Your task to perform on an android device: Open calendar and show me the fourth week of next month Image 0: 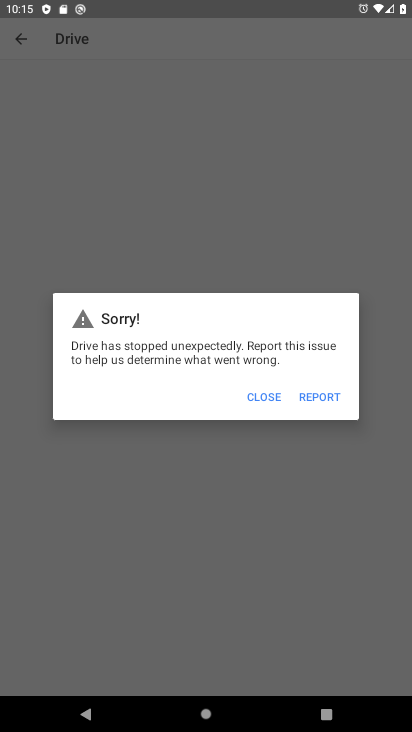
Step 0: press home button
Your task to perform on an android device: Open calendar and show me the fourth week of next month Image 1: 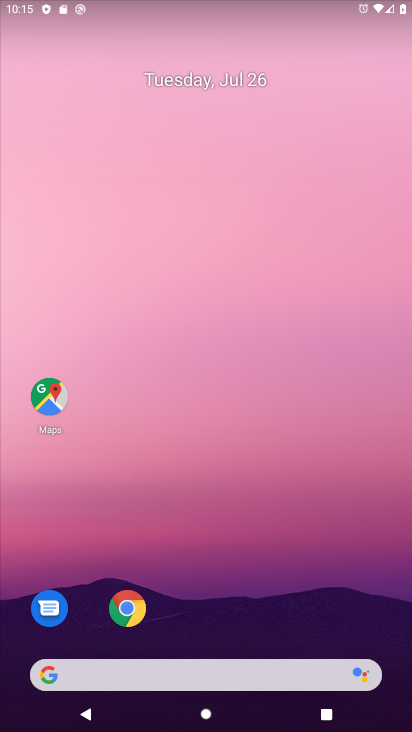
Step 1: drag from (224, 720) to (236, 100)
Your task to perform on an android device: Open calendar and show me the fourth week of next month Image 2: 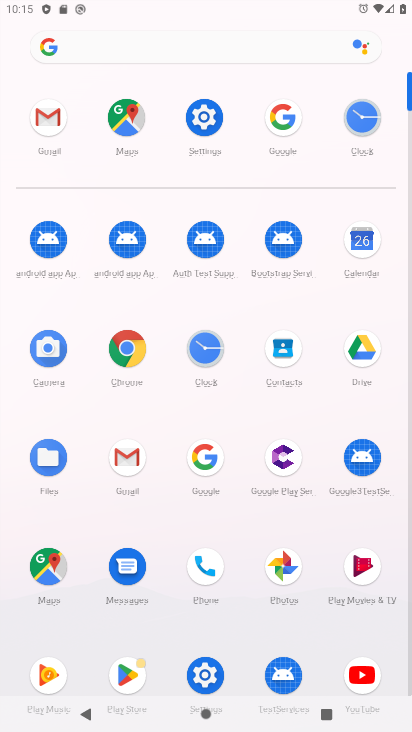
Step 2: click (364, 246)
Your task to perform on an android device: Open calendar and show me the fourth week of next month Image 3: 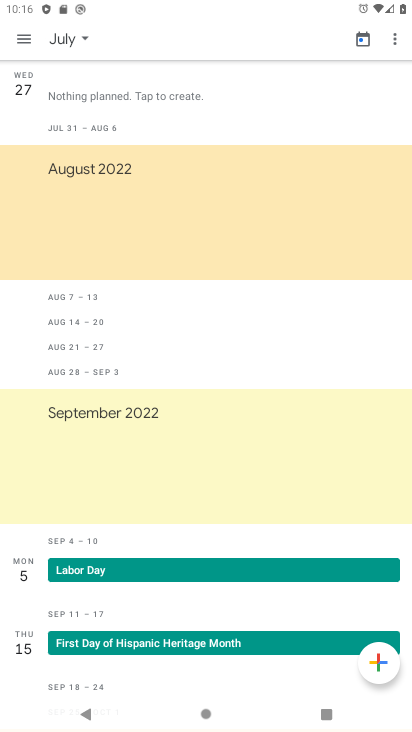
Step 3: click (85, 37)
Your task to perform on an android device: Open calendar and show me the fourth week of next month Image 4: 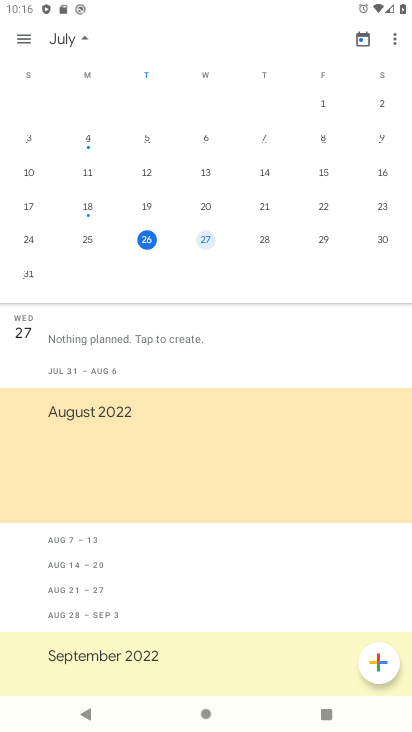
Step 4: drag from (304, 188) to (14, 185)
Your task to perform on an android device: Open calendar and show me the fourth week of next month Image 5: 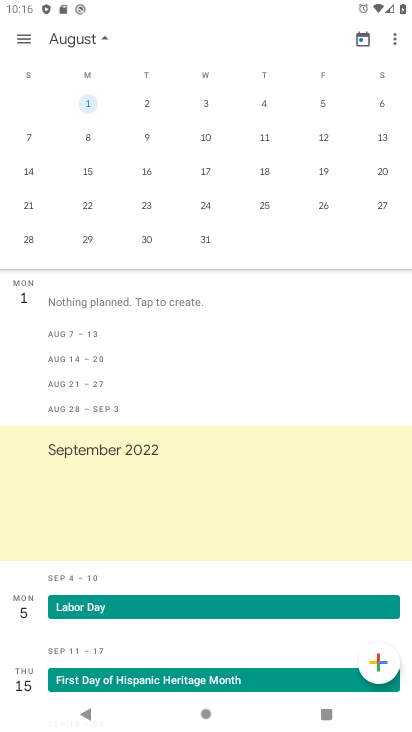
Step 5: click (84, 201)
Your task to perform on an android device: Open calendar and show me the fourth week of next month Image 6: 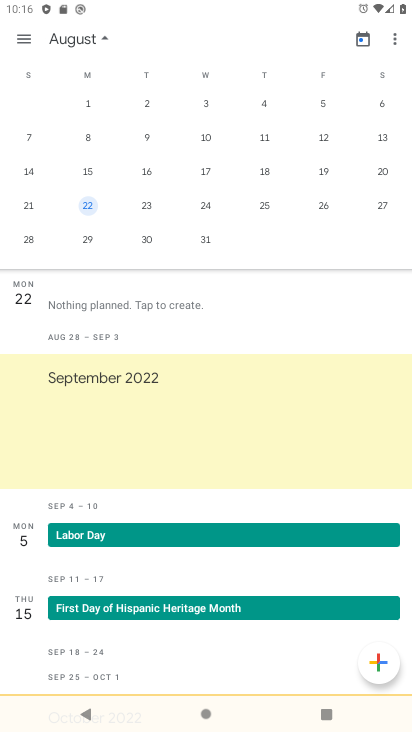
Step 6: click (25, 37)
Your task to perform on an android device: Open calendar and show me the fourth week of next month Image 7: 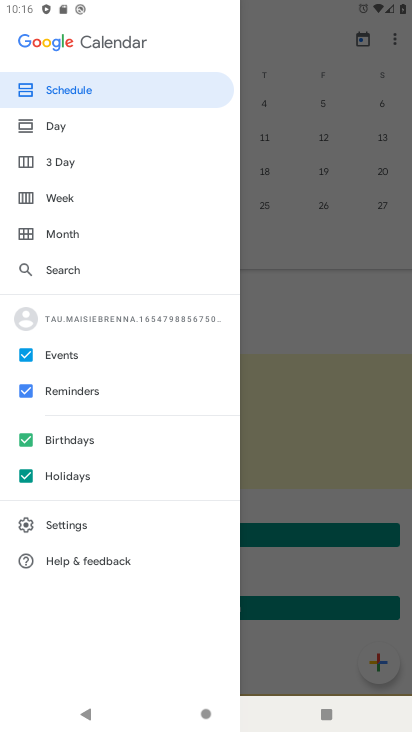
Step 7: click (64, 195)
Your task to perform on an android device: Open calendar and show me the fourth week of next month Image 8: 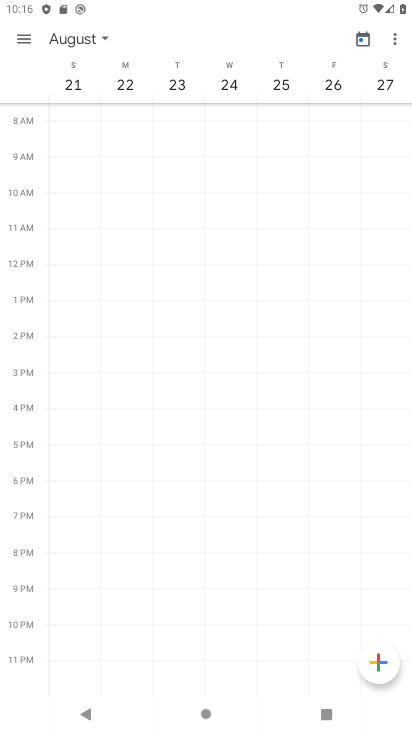
Step 8: task complete